Your task to perform on an android device: Open network settings Image 0: 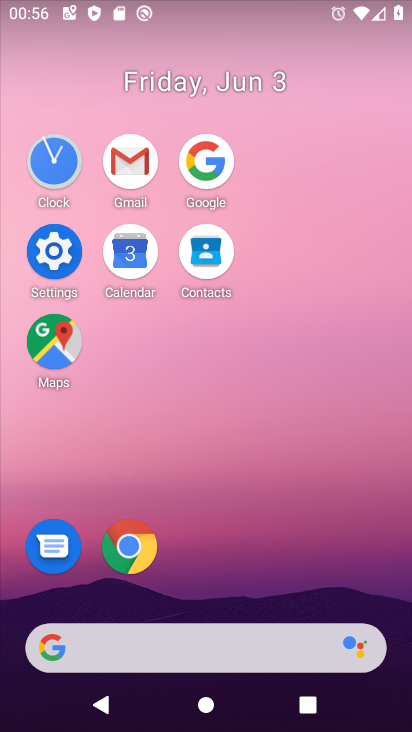
Step 0: click (44, 265)
Your task to perform on an android device: Open network settings Image 1: 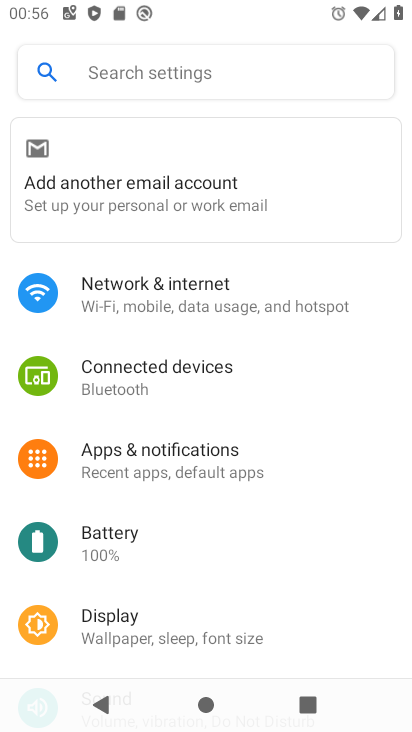
Step 1: click (122, 311)
Your task to perform on an android device: Open network settings Image 2: 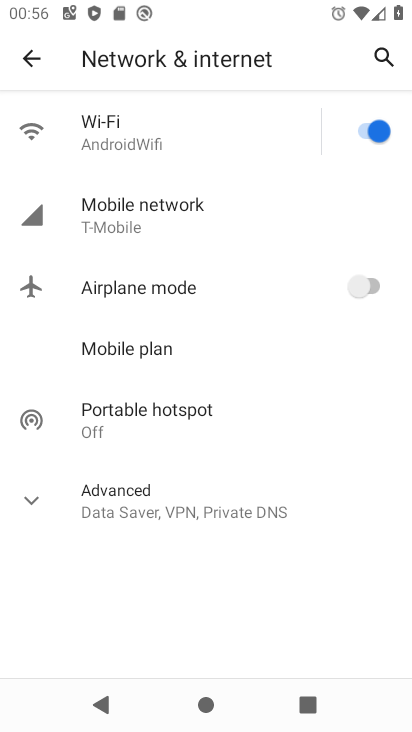
Step 2: task complete